Your task to perform on an android device: toggle translation in the chrome app Image 0: 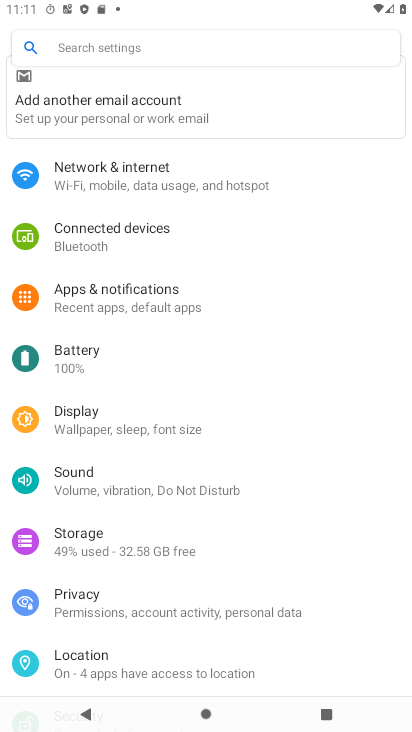
Step 0: press home button
Your task to perform on an android device: toggle translation in the chrome app Image 1: 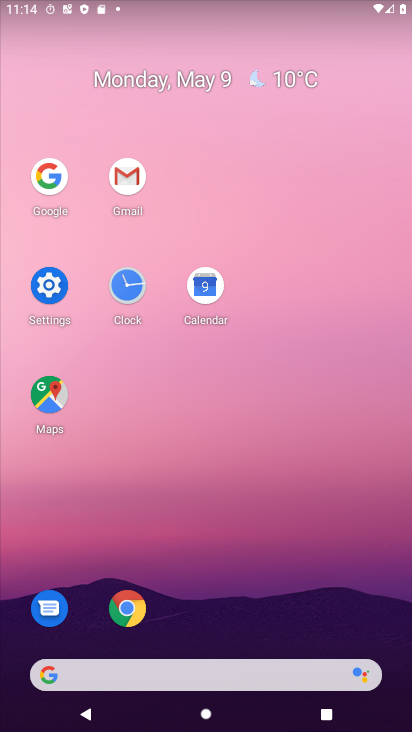
Step 1: click (129, 606)
Your task to perform on an android device: toggle translation in the chrome app Image 2: 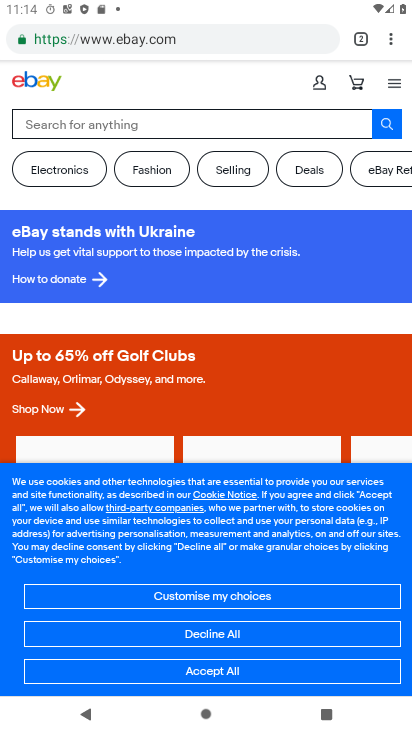
Step 2: click (391, 41)
Your task to perform on an android device: toggle translation in the chrome app Image 3: 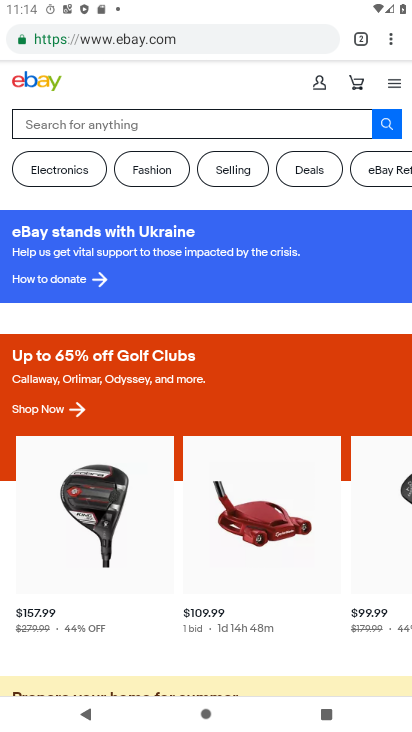
Step 3: click (392, 31)
Your task to perform on an android device: toggle translation in the chrome app Image 4: 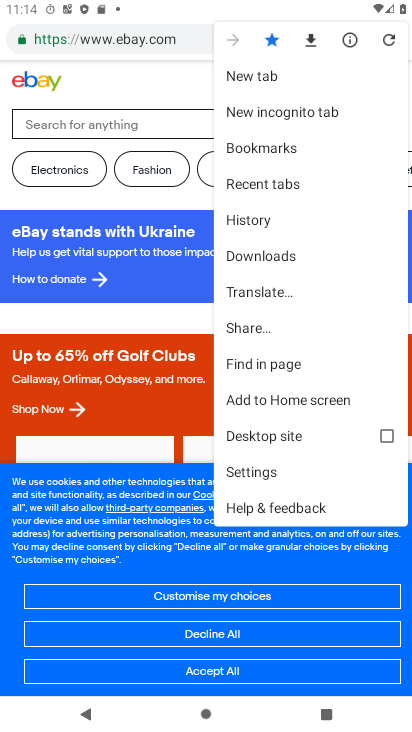
Step 4: drag from (313, 458) to (332, 126)
Your task to perform on an android device: toggle translation in the chrome app Image 5: 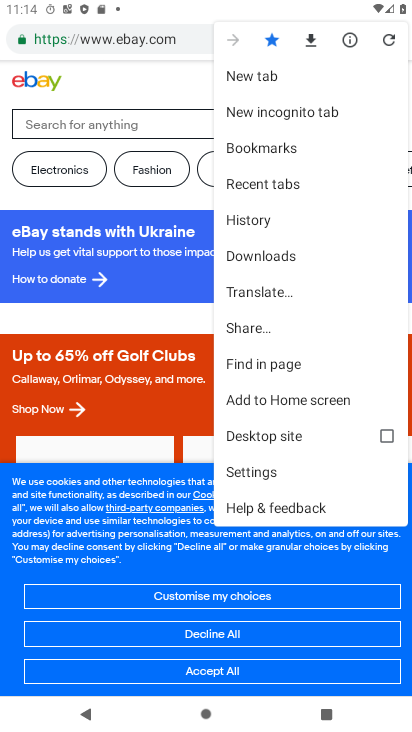
Step 5: click (288, 483)
Your task to perform on an android device: toggle translation in the chrome app Image 6: 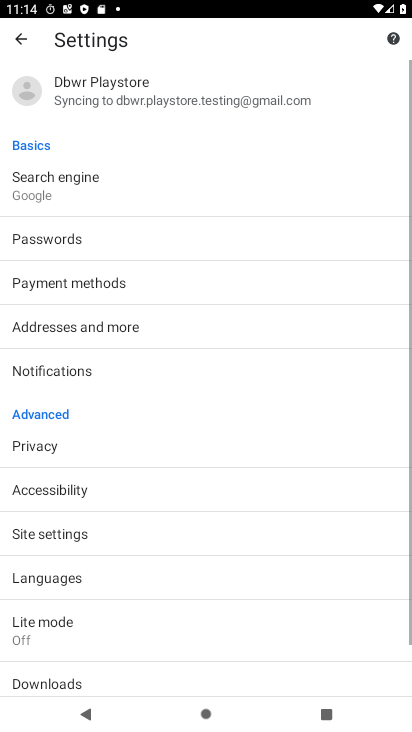
Step 6: drag from (222, 578) to (276, 276)
Your task to perform on an android device: toggle translation in the chrome app Image 7: 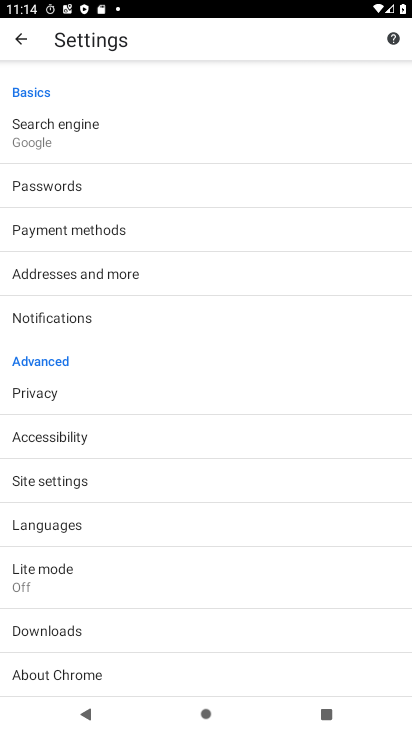
Step 7: click (76, 528)
Your task to perform on an android device: toggle translation in the chrome app Image 8: 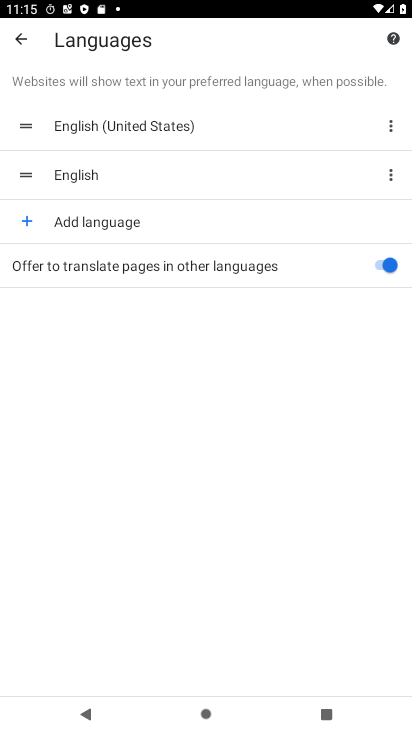
Step 8: click (393, 262)
Your task to perform on an android device: toggle translation in the chrome app Image 9: 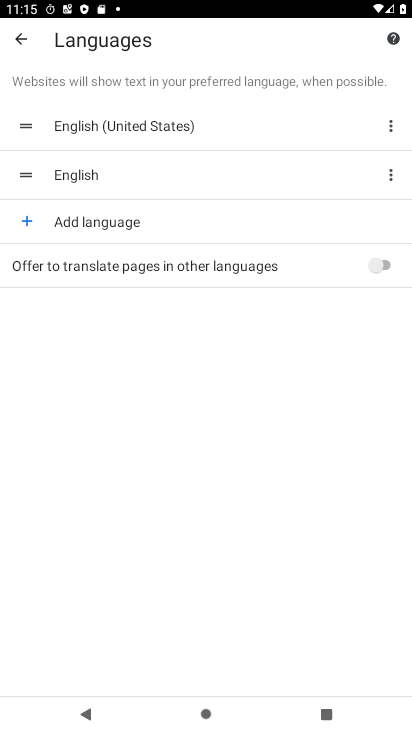
Step 9: task complete